Your task to perform on an android device: stop showing notifications on the lock screen Image 0: 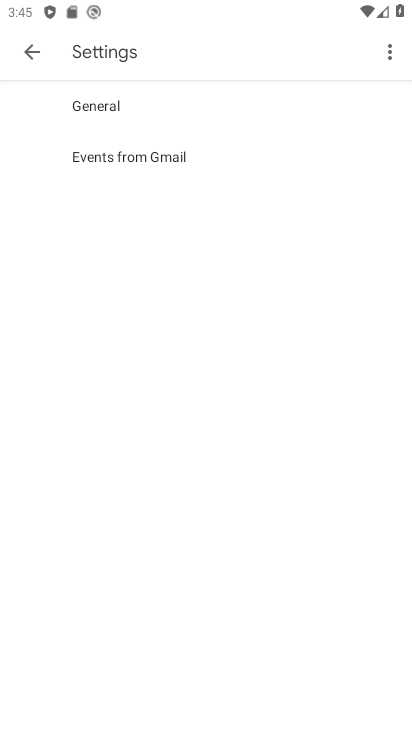
Step 0: press home button
Your task to perform on an android device: stop showing notifications on the lock screen Image 1: 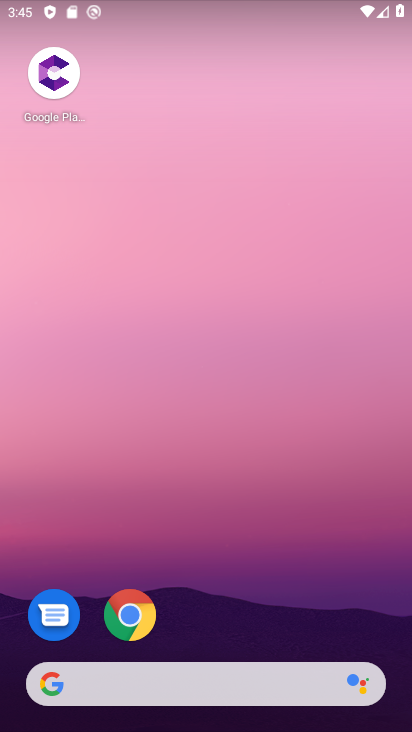
Step 1: drag from (224, 559) to (273, 138)
Your task to perform on an android device: stop showing notifications on the lock screen Image 2: 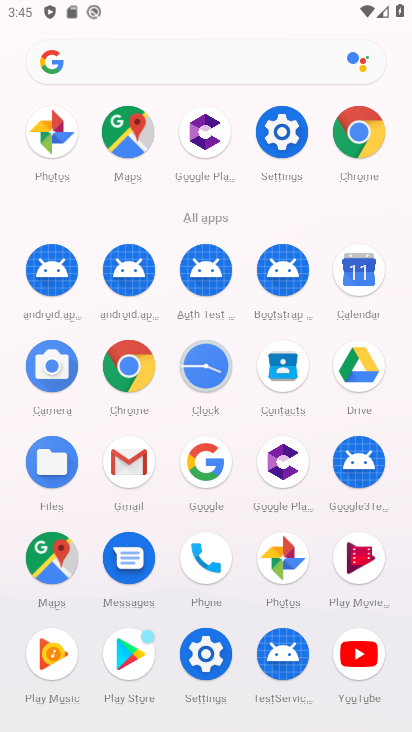
Step 2: click (278, 143)
Your task to perform on an android device: stop showing notifications on the lock screen Image 3: 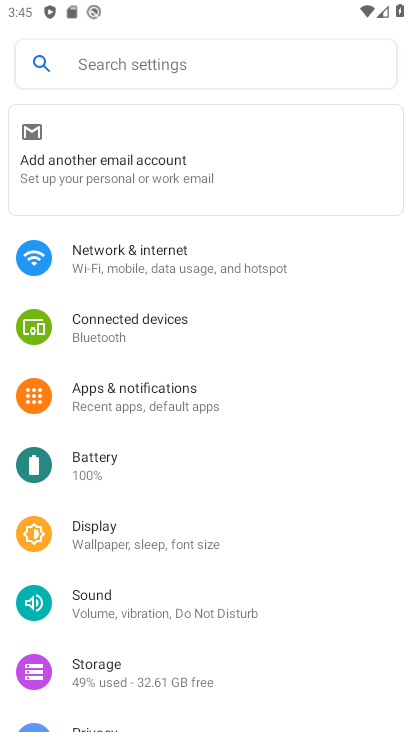
Step 3: drag from (179, 628) to (168, 387)
Your task to perform on an android device: stop showing notifications on the lock screen Image 4: 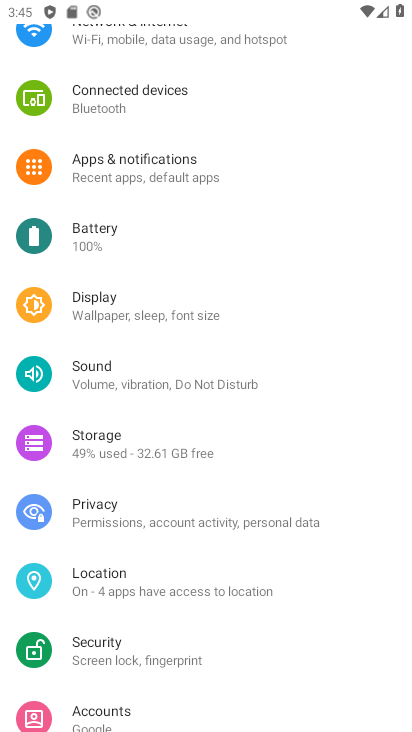
Step 4: click (115, 163)
Your task to perform on an android device: stop showing notifications on the lock screen Image 5: 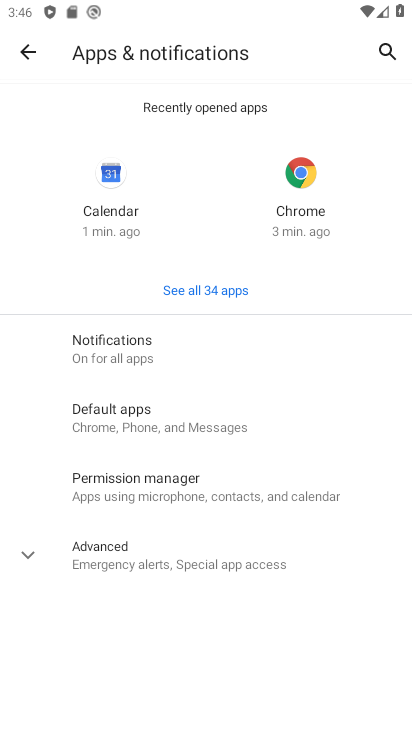
Step 5: click (164, 349)
Your task to perform on an android device: stop showing notifications on the lock screen Image 6: 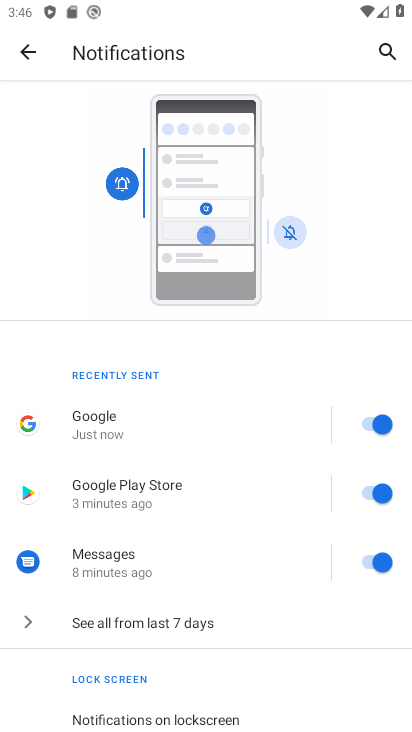
Step 6: drag from (216, 683) to (154, 519)
Your task to perform on an android device: stop showing notifications on the lock screen Image 7: 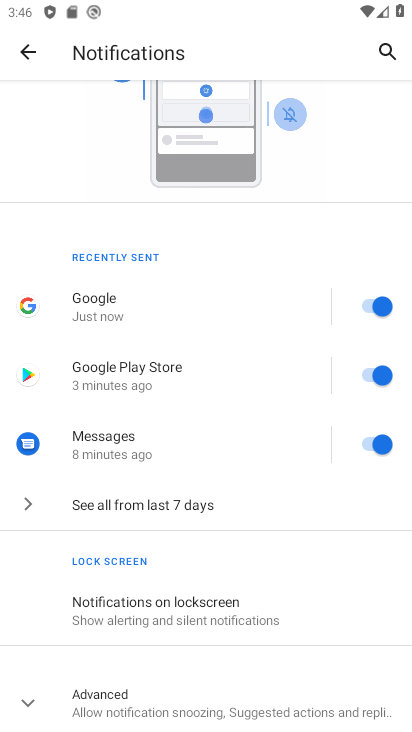
Step 7: click (177, 607)
Your task to perform on an android device: stop showing notifications on the lock screen Image 8: 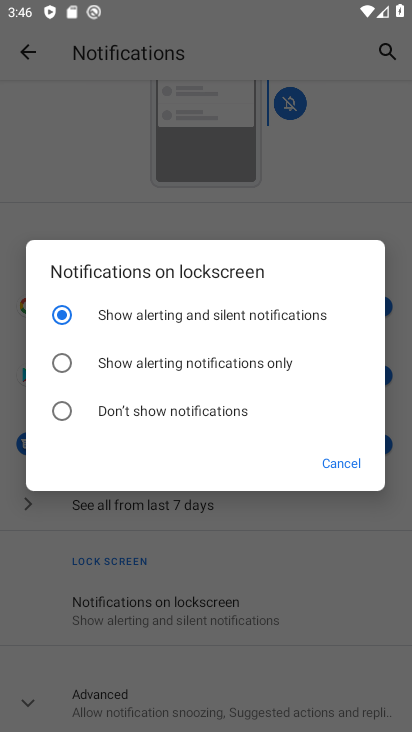
Step 8: click (124, 408)
Your task to perform on an android device: stop showing notifications on the lock screen Image 9: 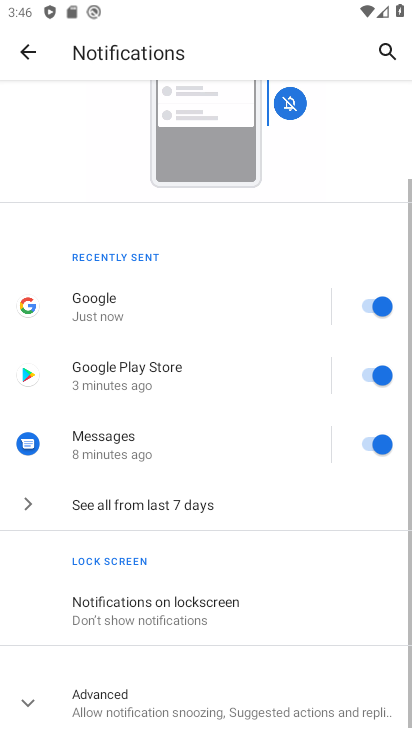
Step 9: task complete